Your task to perform on an android device: turn off wifi Image 0: 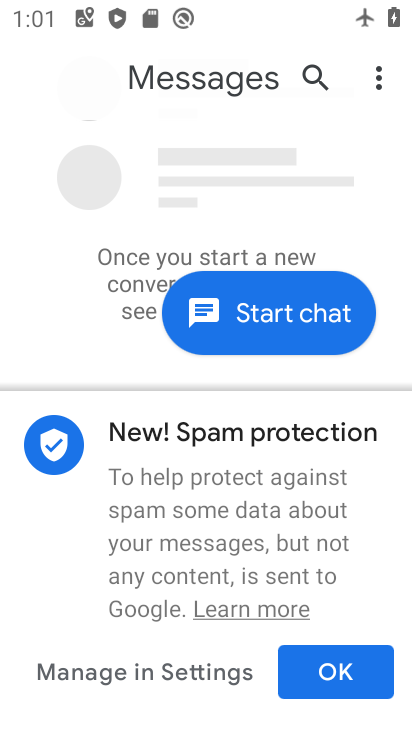
Step 0: press home button
Your task to perform on an android device: turn off wifi Image 1: 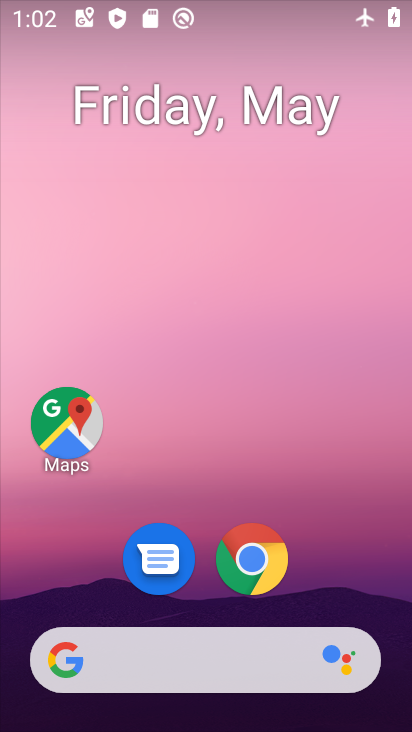
Step 1: drag from (328, 606) to (346, 155)
Your task to perform on an android device: turn off wifi Image 2: 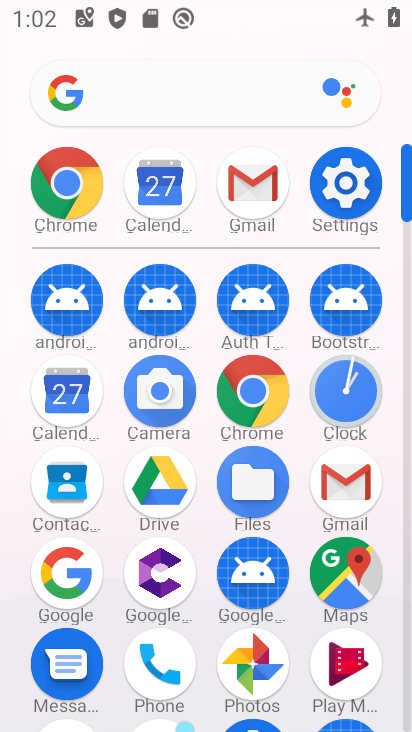
Step 2: click (323, 173)
Your task to perform on an android device: turn off wifi Image 3: 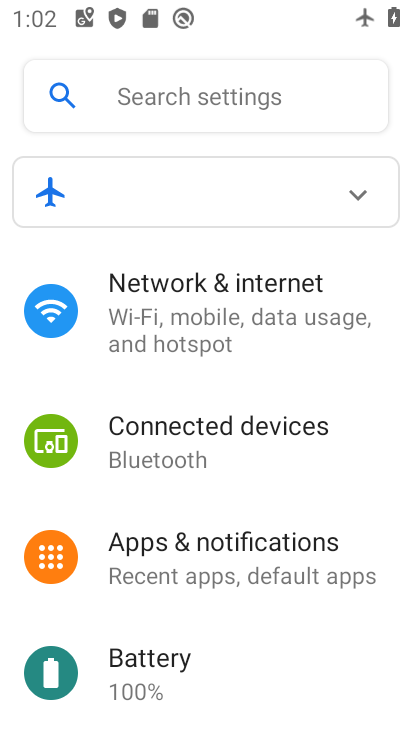
Step 3: click (248, 325)
Your task to perform on an android device: turn off wifi Image 4: 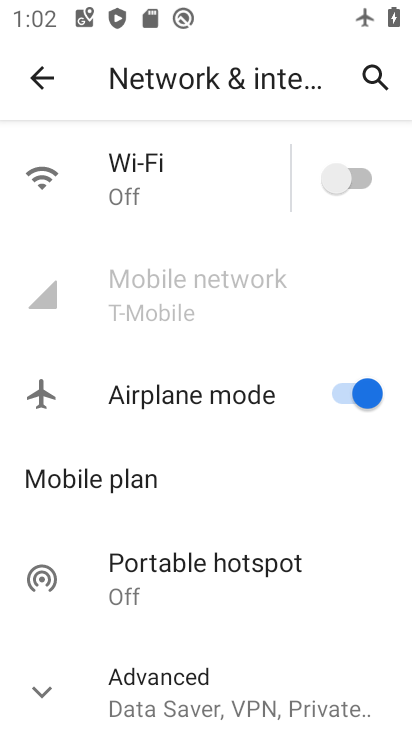
Step 4: click (142, 168)
Your task to perform on an android device: turn off wifi Image 5: 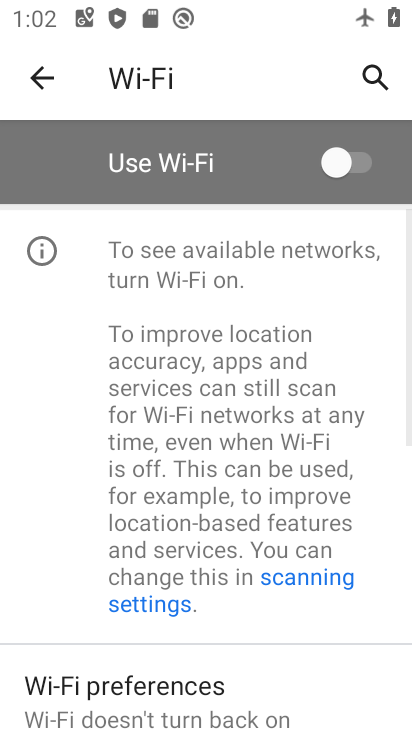
Step 5: task complete